Your task to perform on an android device: Go to Google maps Image 0: 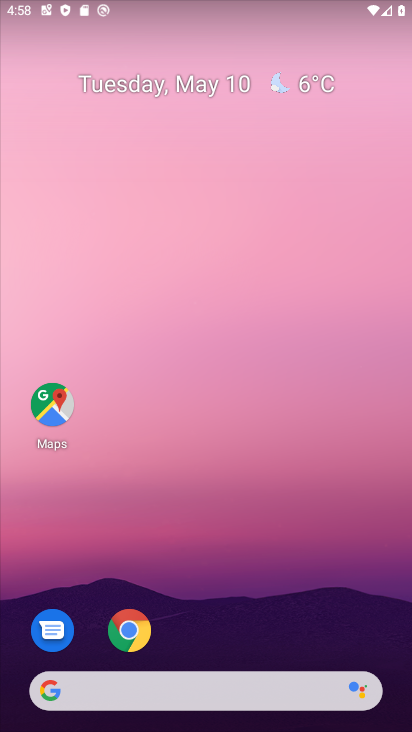
Step 0: click (45, 404)
Your task to perform on an android device: Go to Google maps Image 1: 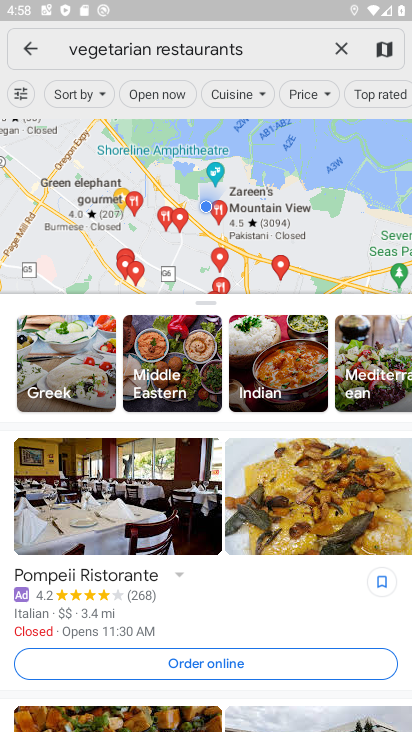
Step 1: task complete